Your task to perform on an android device: allow notifications from all sites in the chrome app Image 0: 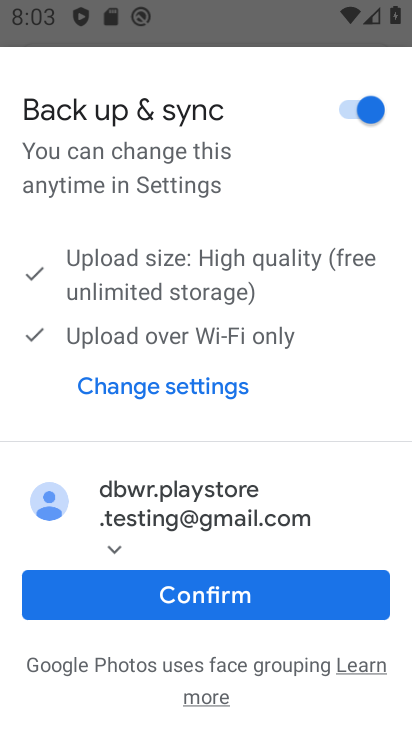
Step 0: press home button
Your task to perform on an android device: allow notifications from all sites in the chrome app Image 1: 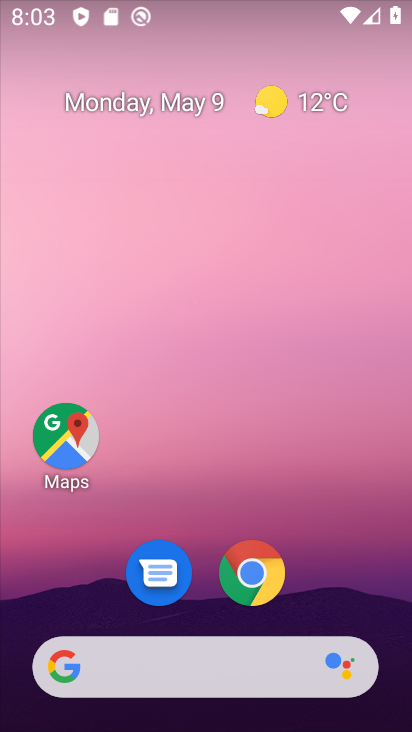
Step 1: click (268, 586)
Your task to perform on an android device: allow notifications from all sites in the chrome app Image 2: 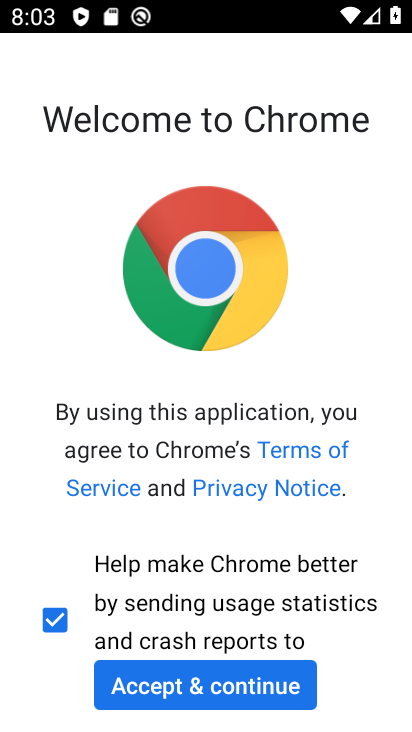
Step 2: click (224, 698)
Your task to perform on an android device: allow notifications from all sites in the chrome app Image 3: 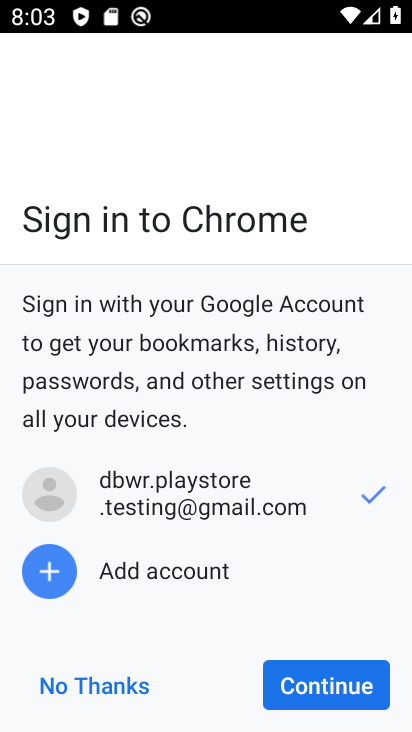
Step 3: click (370, 693)
Your task to perform on an android device: allow notifications from all sites in the chrome app Image 4: 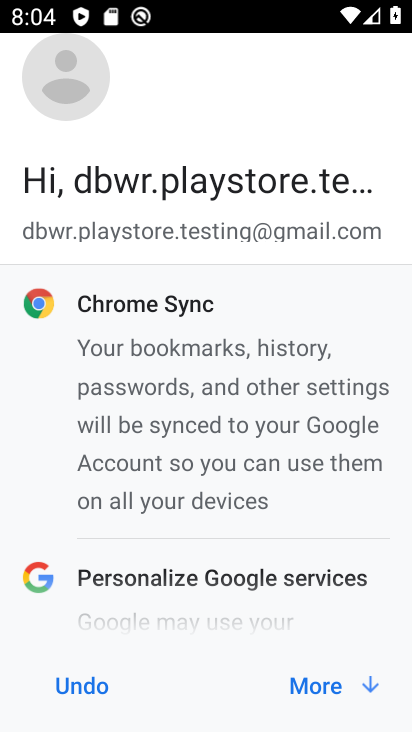
Step 4: click (367, 692)
Your task to perform on an android device: allow notifications from all sites in the chrome app Image 5: 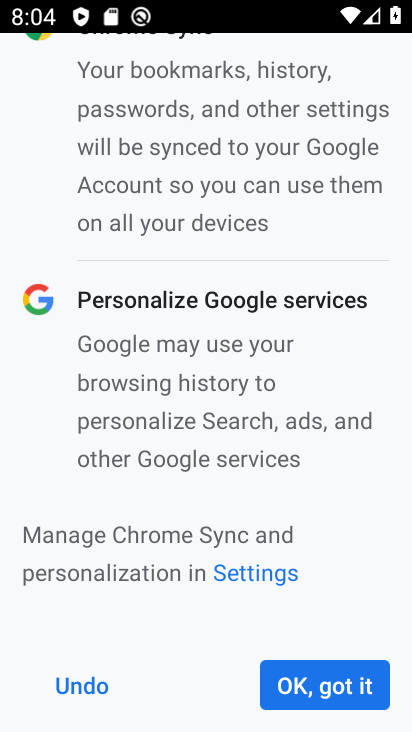
Step 5: click (324, 687)
Your task to perform on an android device: allow notifications from all sites in the chrome app Image 6: 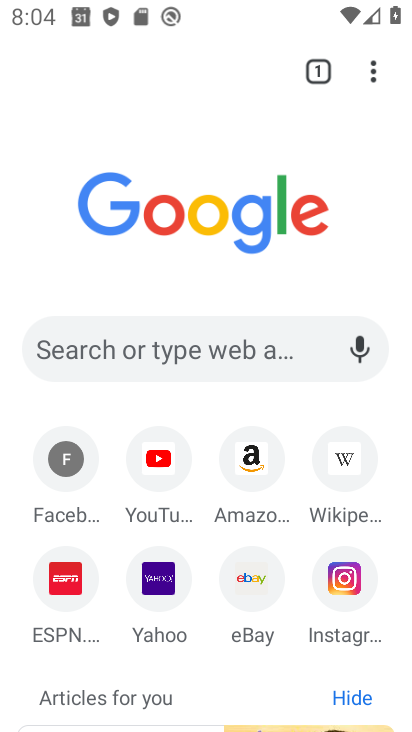
Step 6: click (380, 98)
Your task to perform on an android device: allow notifications from all sites in the chrome app Image 7: 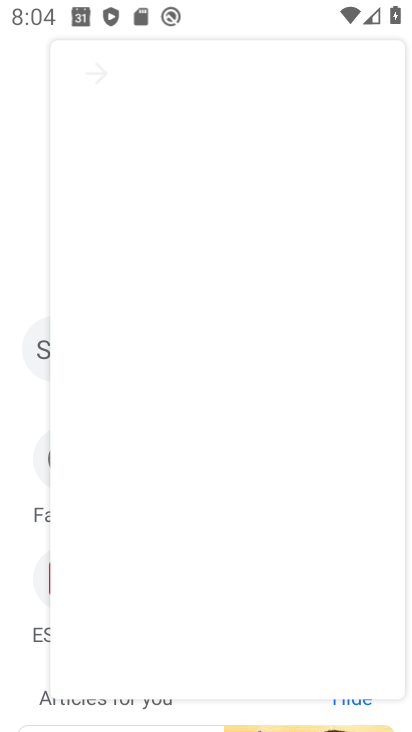
Step 7: click (372, 77)
Your task to perform on an android device: allow notifications from all sites in the chrome app Image 8: 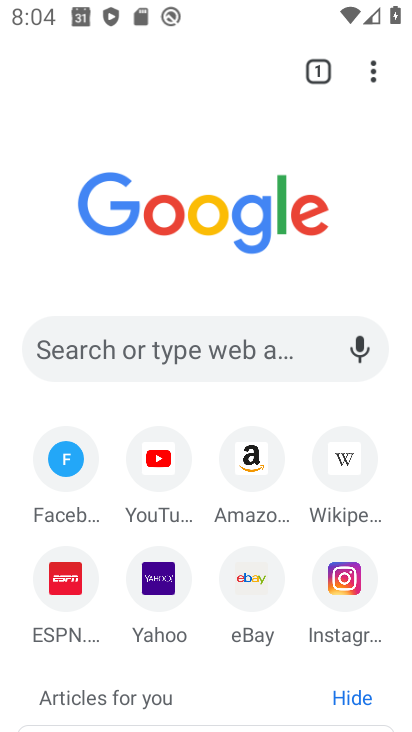
Step 8: click (377, 78)
Your task to perform on an android device: allow notifications from all sites in the chrome app Image 9: 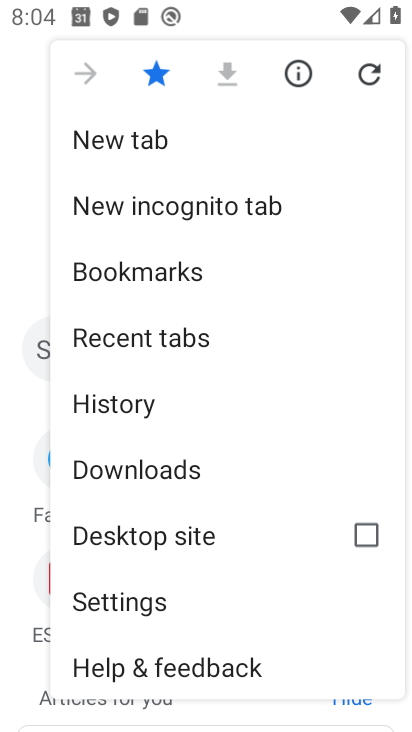
Step 9: drag from (188, 604) to (258, 223)
Your task to perform on an android device: allow notifications from all sites in the chrome app Image 10: 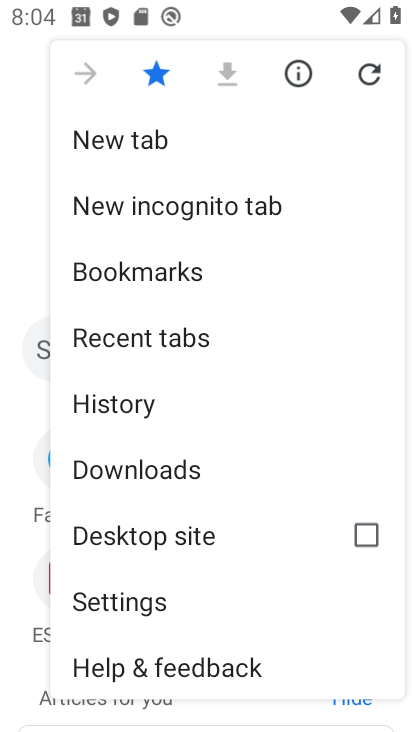
Step 10: click (170, 608)
Your task to perform on an android device: allow notifications from all sites in the chrome app Image 11: 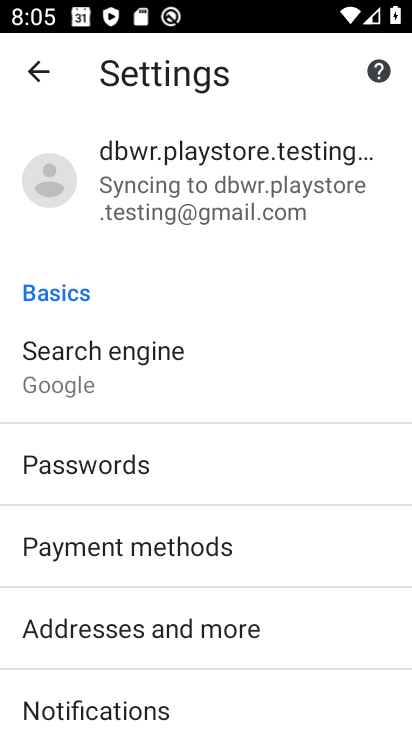
Step 11: drag from (245, 587) to (248, 241)
Your task to perform on an android device: allow notifications from all sites in the chrome app Image 12: 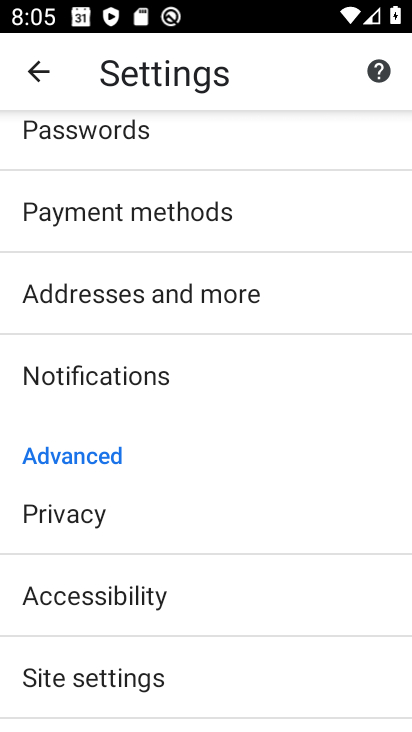
Step 12: click (151, 380)
Your task to perform on an android device: allow notifications from all sites in the chrome app Image 13: 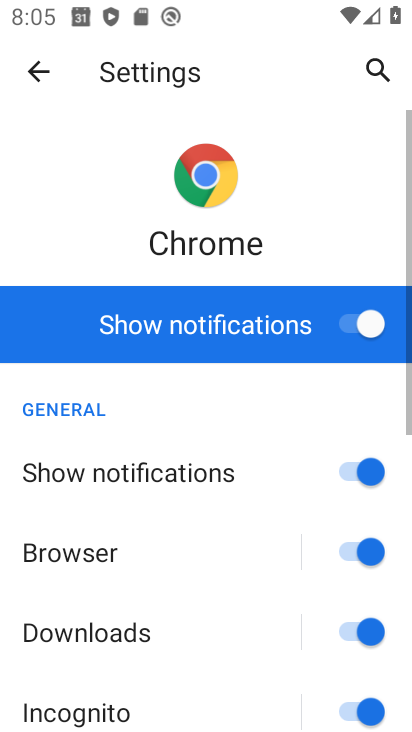
Step 13: task complete